Your task to perform on an android device: choose inbox layout in the gmail app Image 0: 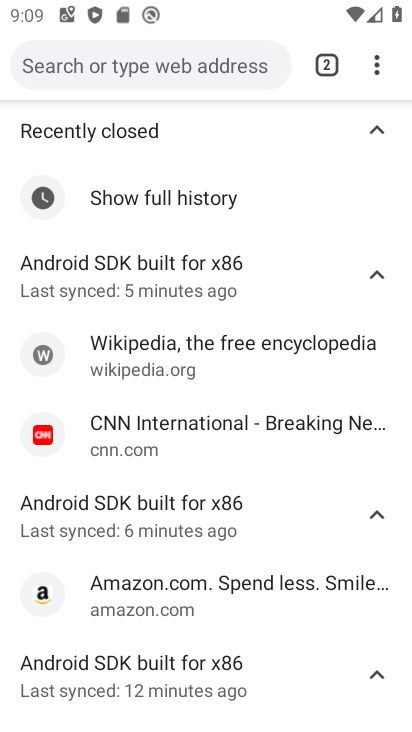
Step 0: press home button
Your task to perform on an android device: choose inbox layout in the gmail app Image 1: 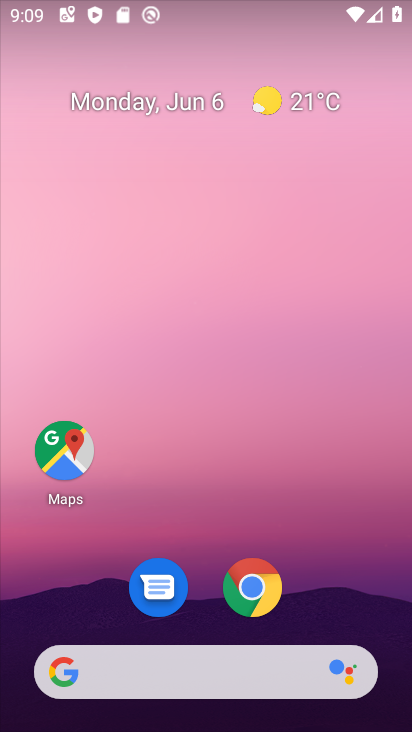
Step 1: drag from (180, 696) to (271, 5)
Your task to perform on an android device: choose inbox layout in the gmail app Image 2: 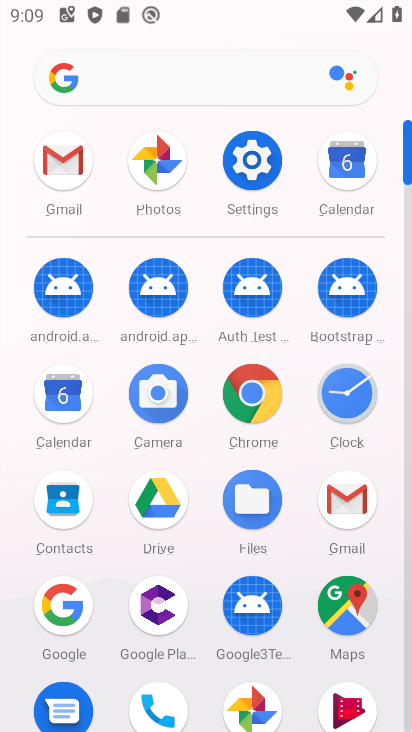
Step 2: click (336, 490)
Your task to perform on an android device: choose inbox layout in the gmail app Image 3: 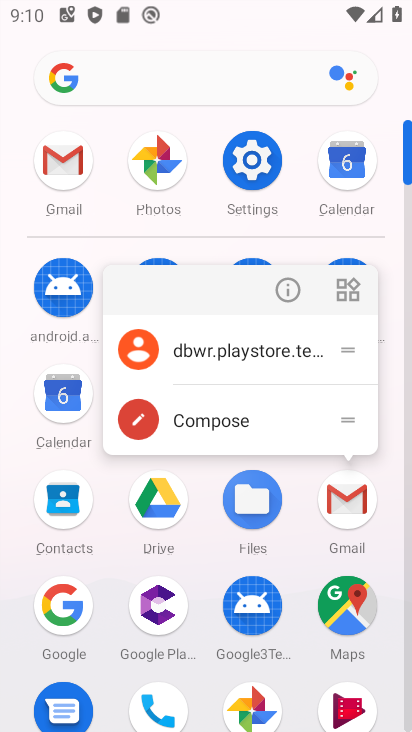
Step 3: click (320, 482)
Your task to perform on an android device: choose inbox layout in the gmail app Image 4: 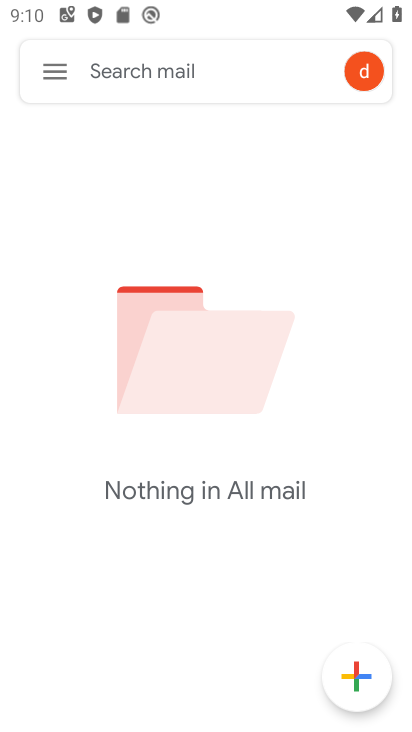
Step 4: click (41, 70)
Your task to perform on an android device: choose inbox layout in the gmail app Image 5: 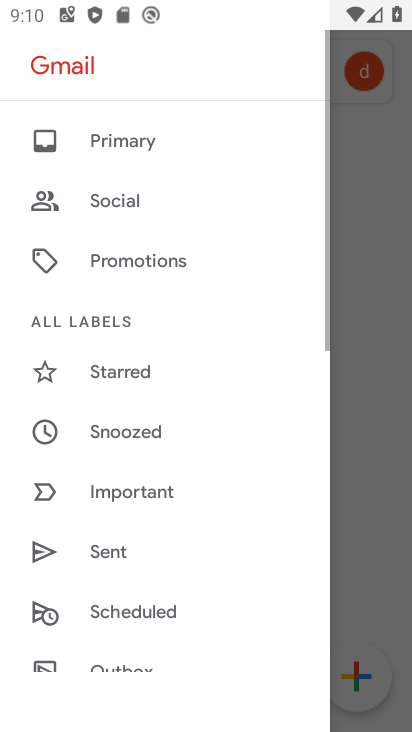
Step 5: drag from (108, 561) to (238, 26)
Your task to perform on an android device: choose inbox layout in the gmail app Image 6: 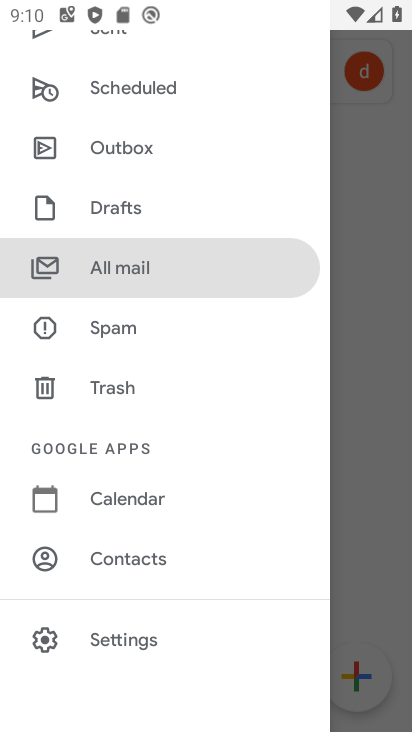
Step 6: click (162, 648)
Your task to perform on an android device: choose inbox layout in the gmail app Image 7: 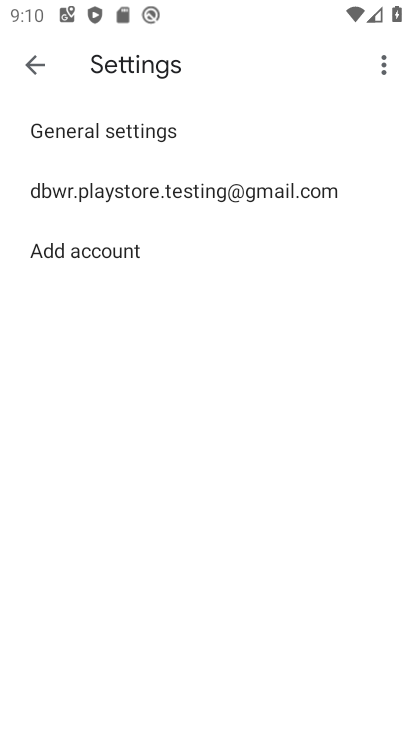
Step 7: click (276, 188)
Your task to perform on an android device: choose inbox layout in the gmail app Image 8: 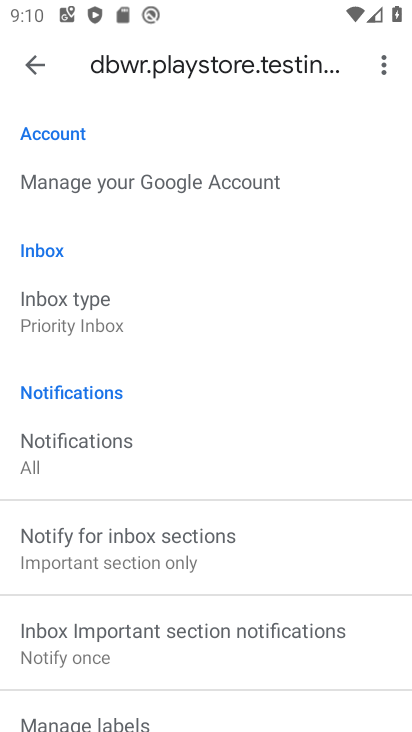
Step 8: click (96, 311)
Your task to perform on an android device: choose inbox layout in the gmail app Image 9: 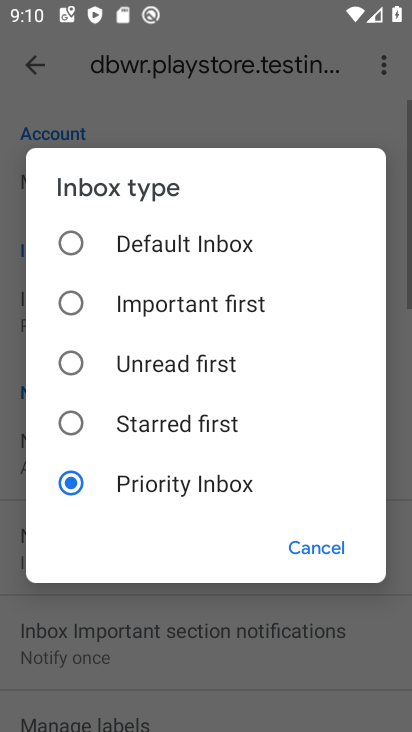
Step 9: click (225, 306)
Your task to perform on an android device: choose inbox layout in the gmail app Image 10: 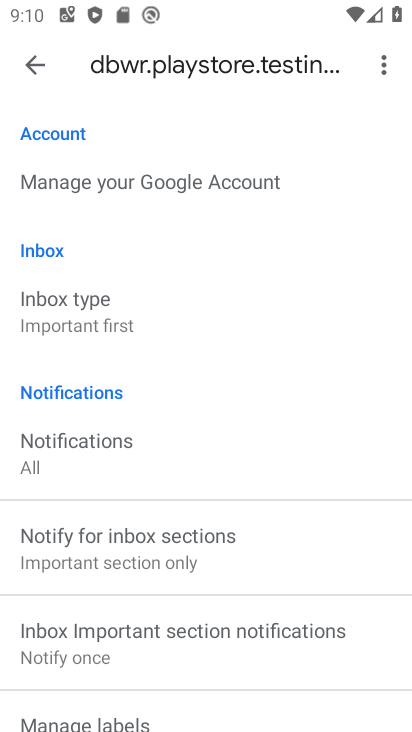
Step 10: task complete